Your task to perform on an android device: Open eBay Image 0: 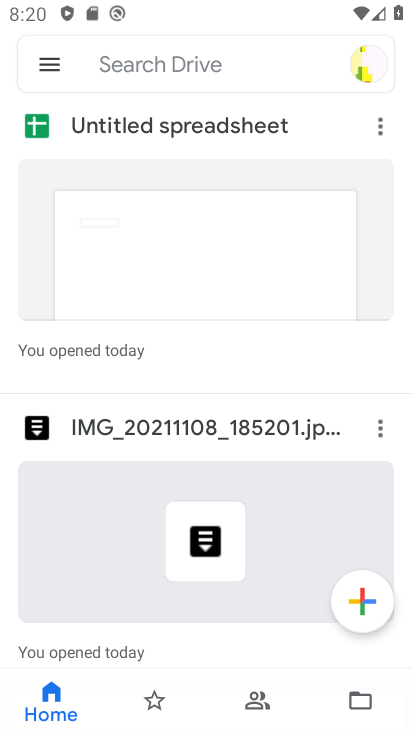
Step 0: press back button
Your task to perform on an android device: Open eBay Image 1: 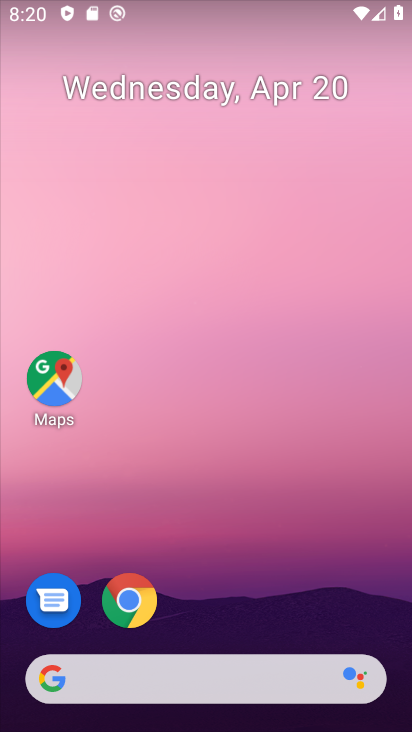
Step 1: click (125, 596)
Your task to perform on an android device: Open eBay Image 2: 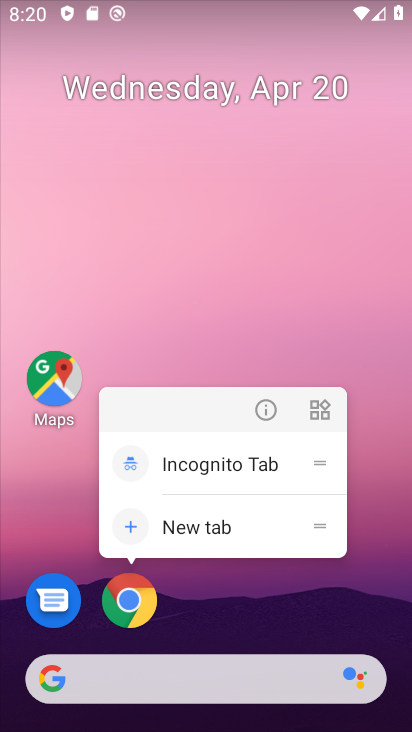
Step 2: click (125, 609)
Your task to perform on an android device: Open eBay Image 3: 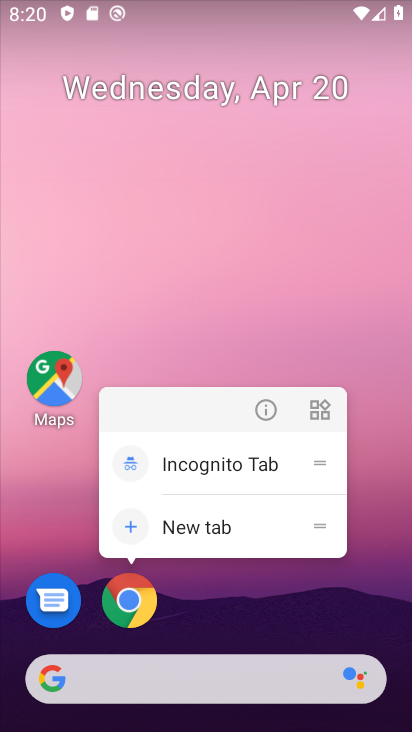
Step 3: click (135, 604)
Your task to perform on an android device: Open eBay Image 4: 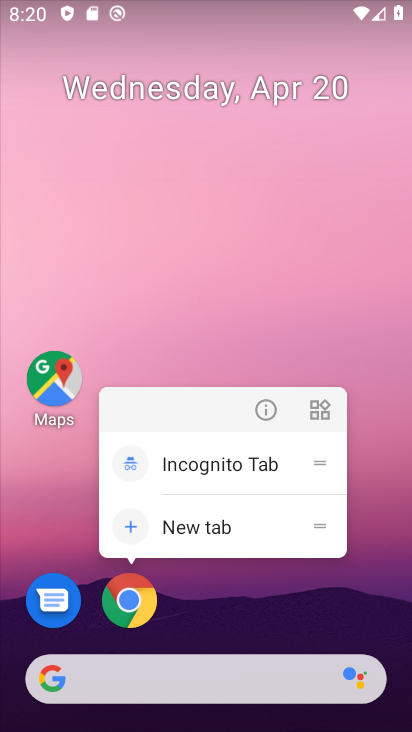
Step 4: click (131, 595)
Your task to perform on an android device: Open eBay Image 5: 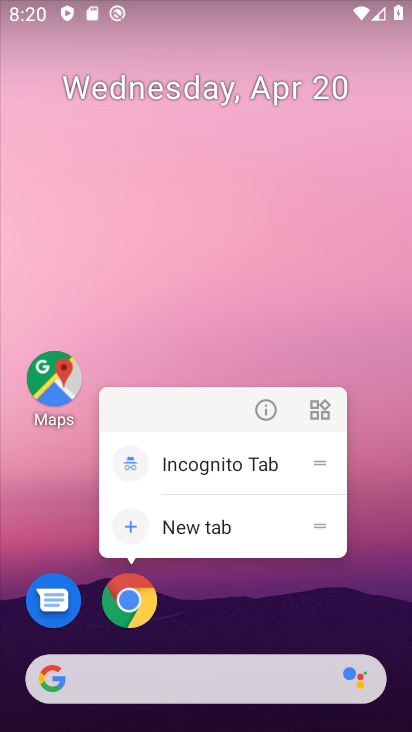
Step 5: click (128, 623)
Your task to perform on an android device: Open eBay Image 6: 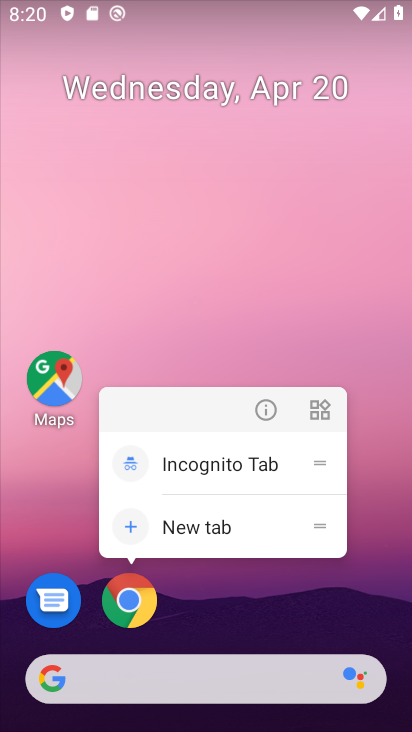
Step 6: click (141, 619)
Your task to perform on an android device: Open eBay Image 7: 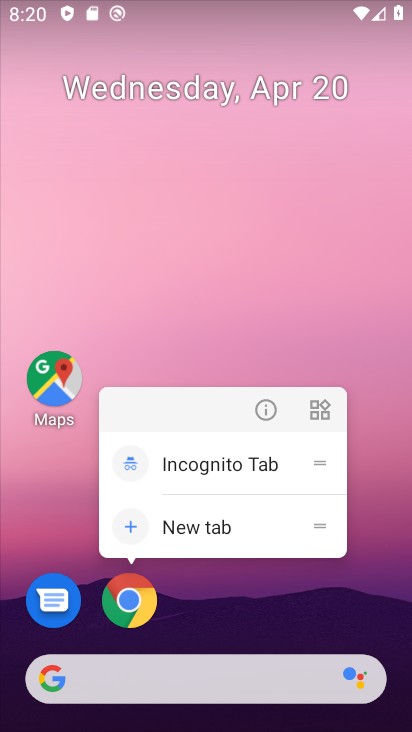
Step 7: click (122, 584)
Your task to perform on an android device: Open eBay Image 8: 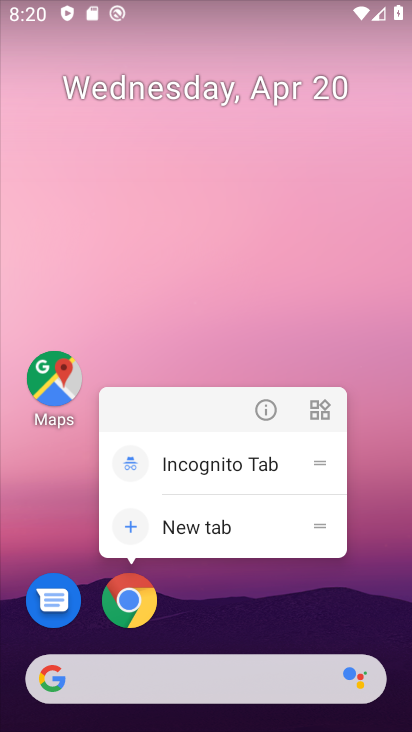
Step 8: click (125, 614)
Your task to perform on an android device: Open eBay Image 9: 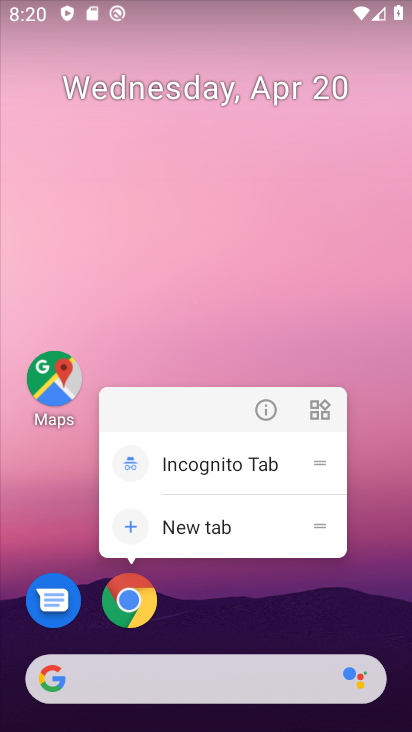
Step 9: click (135, 598)
Your task to perform on an android device: Open eBay Image 10: 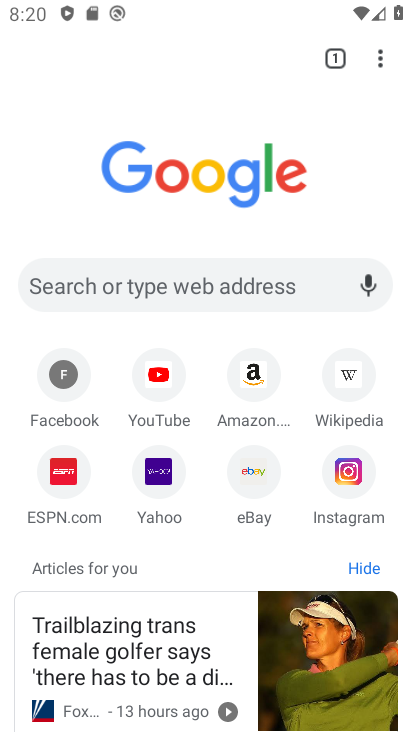
Step 10: click (259, 474)
Your task to perform on an android device: Open eBay Image 11: 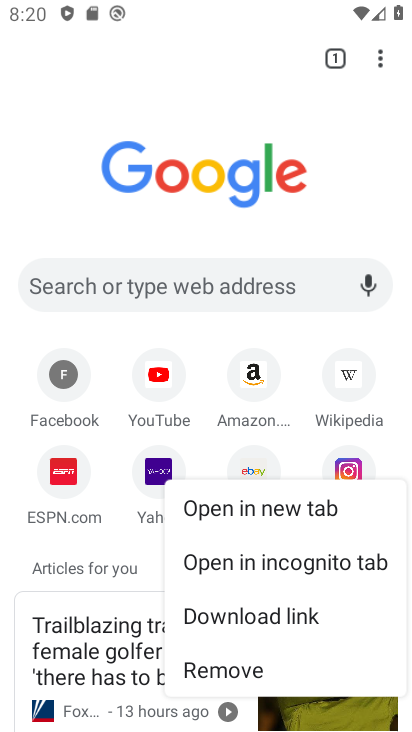
Step 11: click (259, 463)
Your task to perform on an android device: Open eBay Image 12: 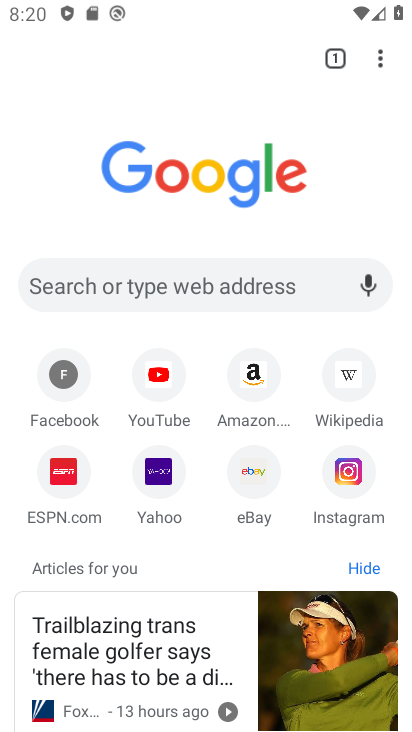
Step 12: click (246, 483)
Your task to perform on an android device: Open eBay Image 13: 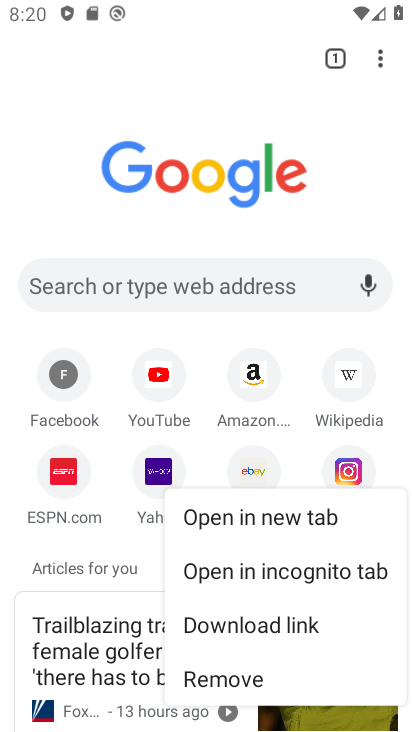
Step 13: click (255, 468)
Your task to perform on an android device: Open eBay Image 14: 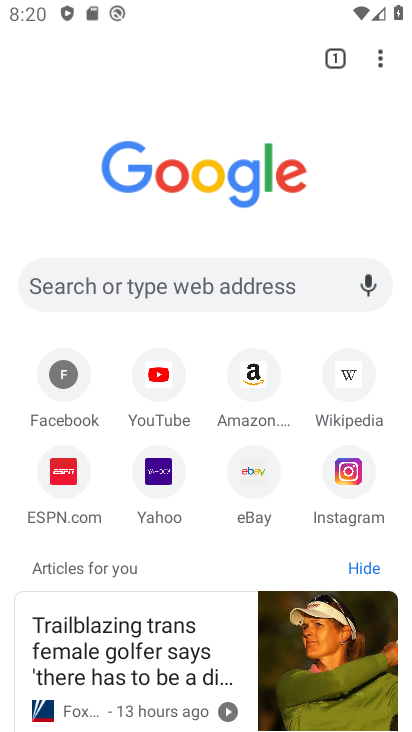
Step 14: click (272, 471)
Your task to perform on an android device: Open eBay Image 15: 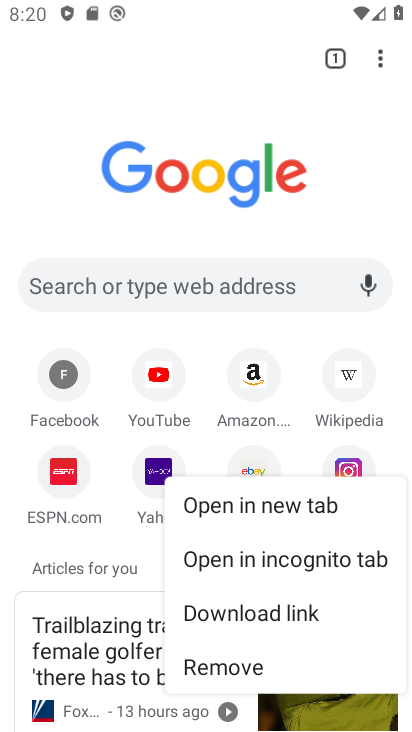
Step 15: click (265, 471)
Your task to perform on an android device: Open eBay Image 16: 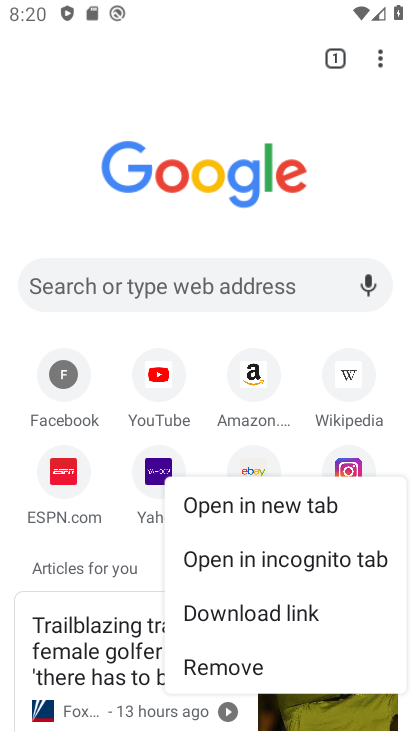
Step 16: click (258, 463)
Your task to perform on an android device: Open eBay Image 17: 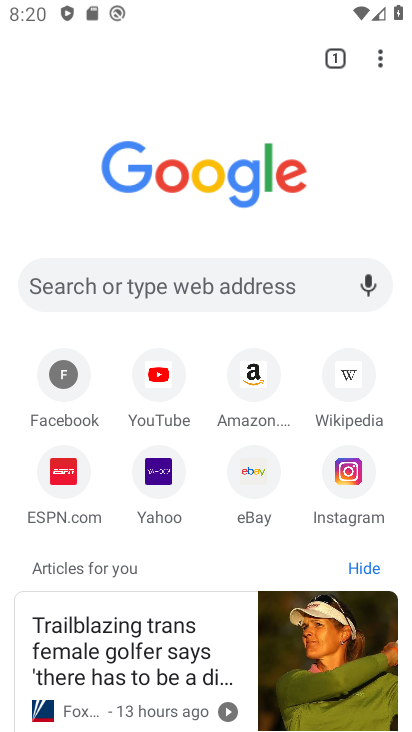
Step 17: click (258, 497)
Your task to perform on an android device: Open eBay Image 18: 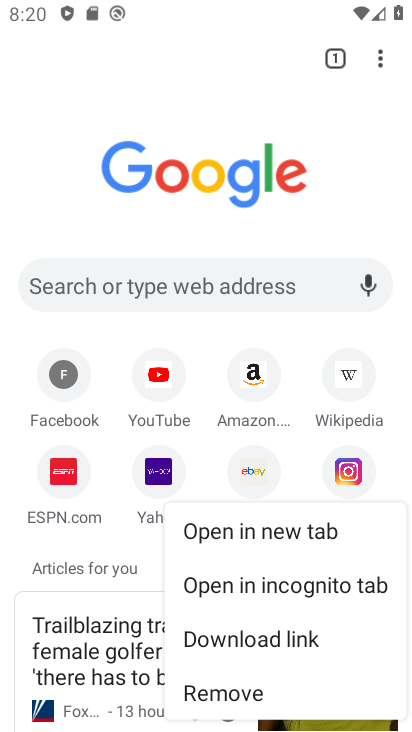
Step 18: click (228, 476)
Your task to perform on an android device: Open eBay Image 19: 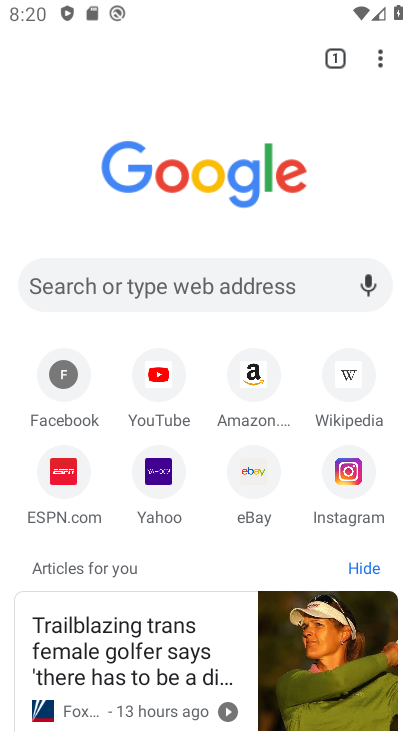
Step 19: click (235, 466)
Your task to perform on an android device: Open eBay Image 20: 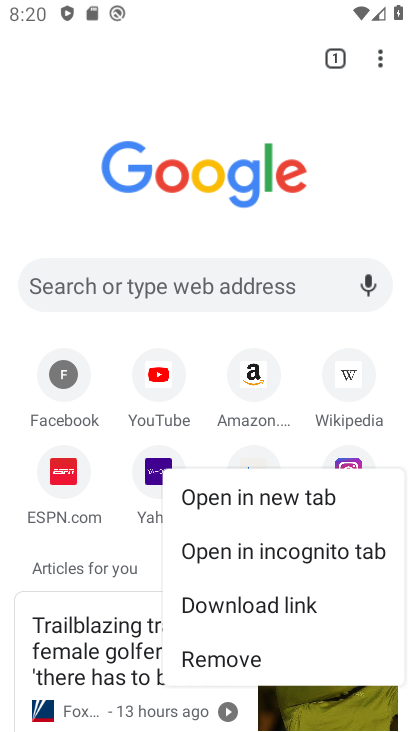
Step 20: click (249, 459)
Your task to perform on an android device: Open eBay Image 21: 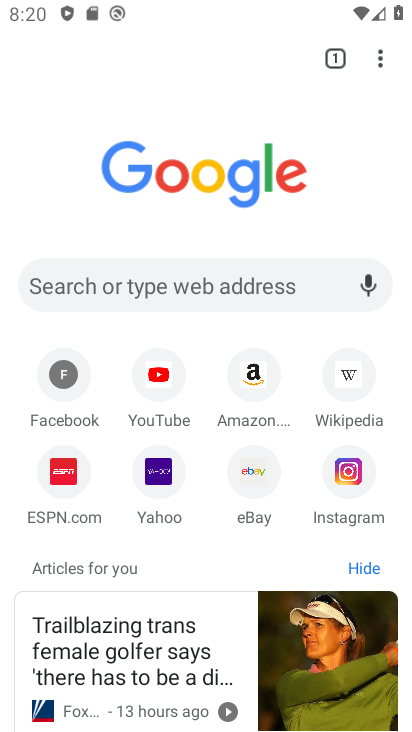
Step 21: click (264, 478)
Your task to perform on an android device: Open eBay Image 22: 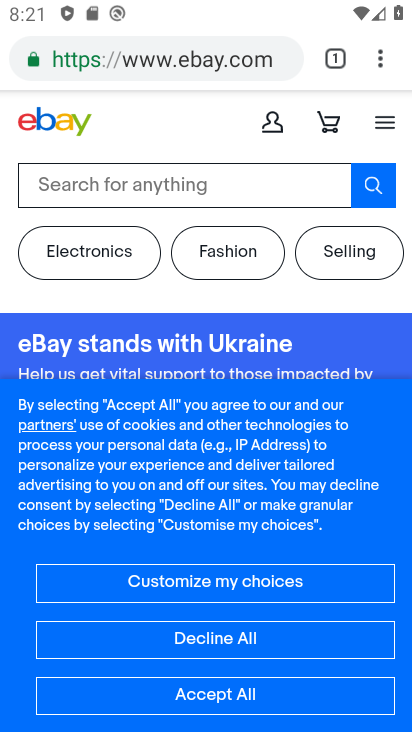
Step 22: click (296, 697)
Your task to perform on an android device: Open eBay Image 23: 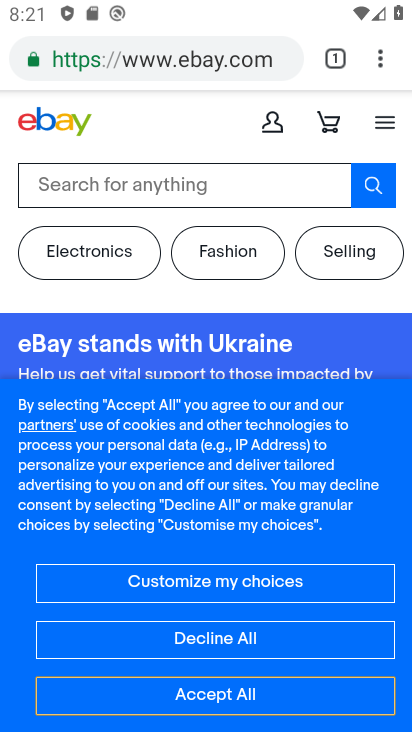
Step 23: click (296, 697)
Your task to perform on an android device: Open eBay Image 24: 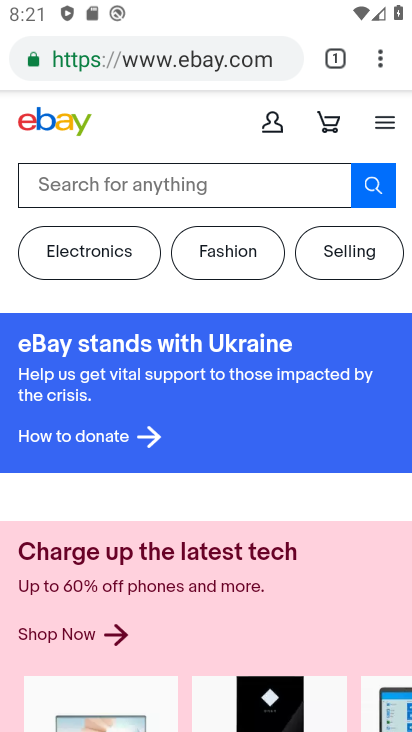
Step 24: task complete